Your task to perform on an android device: Open the calendar and show me this week's events Image 0: 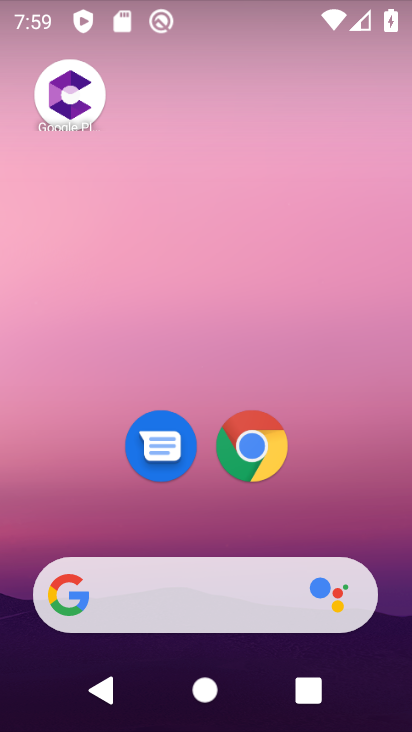
Step 0: drag from (393, 487) to (185, 48)
Your task to perform on an android device: Open the calendar and show me this week's events Image 1: 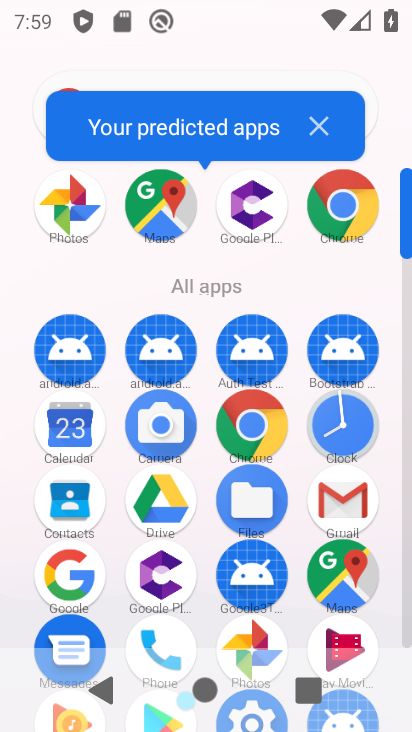
Step 1: click (73, 436)
Your task to perform on an android device: Open the calendar and show me this week's events Image 2: 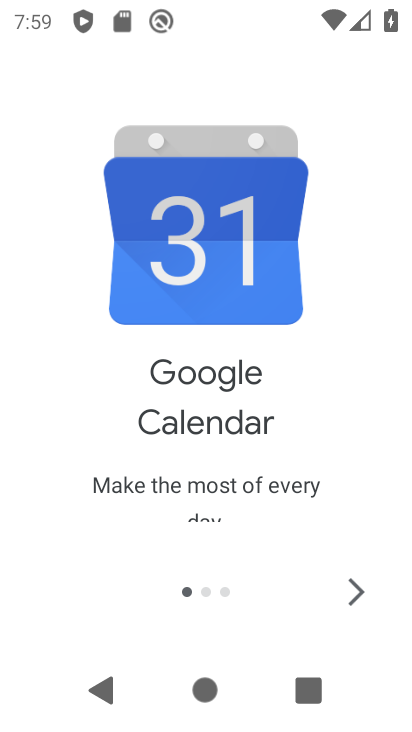
Step 2: click (356, 593)
Your task to perform on an android device: Open the calendar and show me this week's events Image 3: 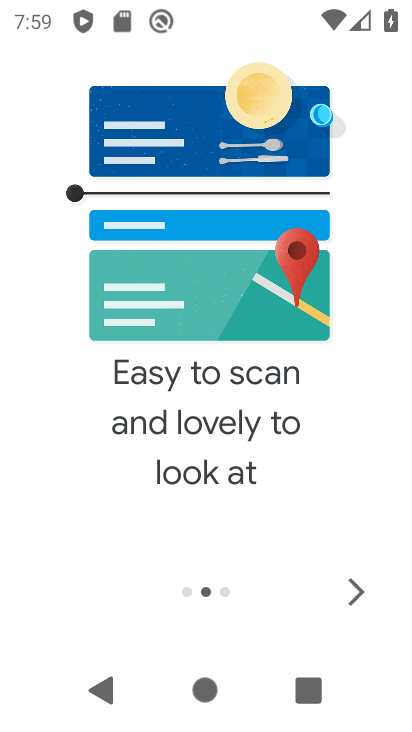
Step 3: click (356, 593)
Your task to perform on an android device: Open the calendar and show me this week's events Image 4: 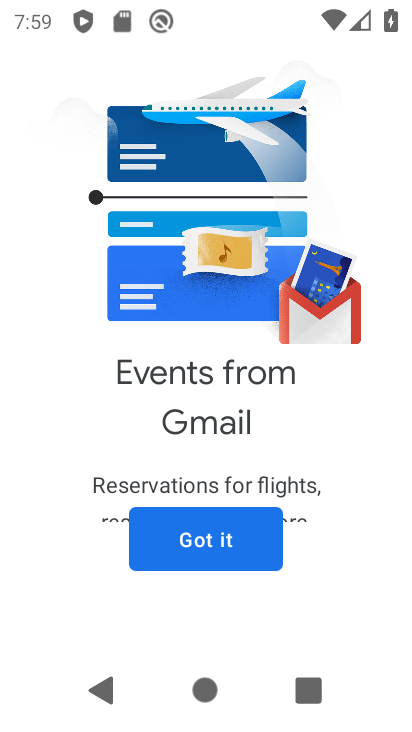
Step 4: click (246, 560)
Your task to perform on an android device: Open the calendar and show me this week's events Image 5: 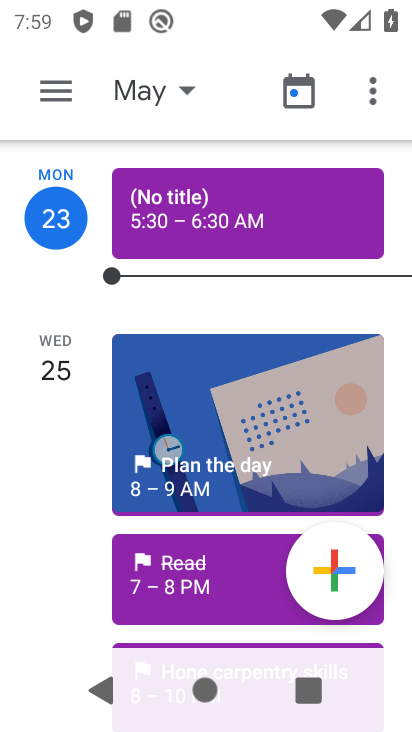
Step 5: click (178, 82)
Your task to perform on an android device: Open the calendar and show me this week's events Image 6: 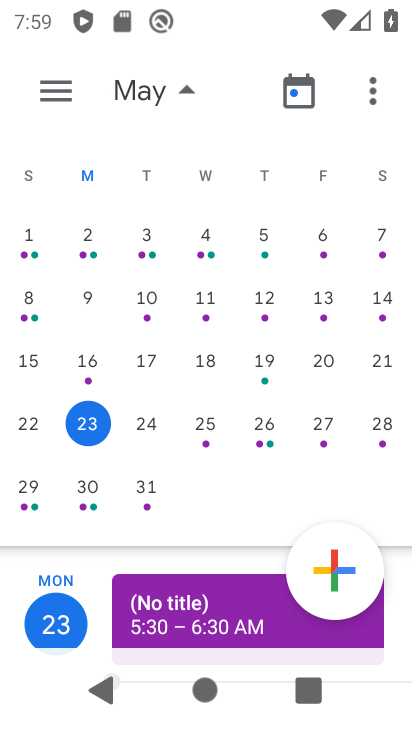
Step 6: click (46, 101)
Your task to perform on an android device: Open the calendar and show me this week's events Image 7: 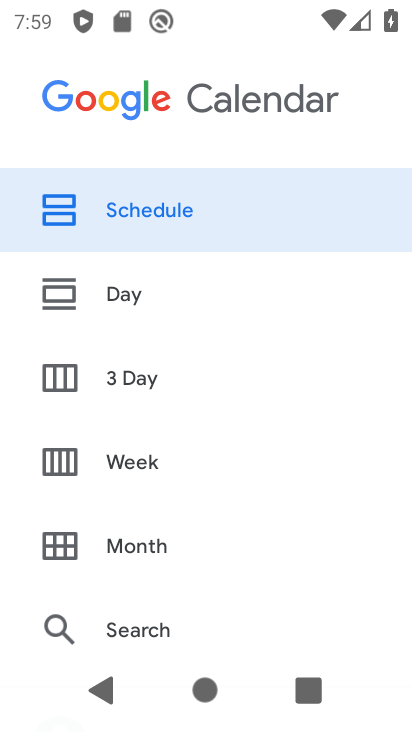
Step 7: click (171, 460)
Your task to perform on an android device: Open the calendar and show me this week's events Image 8: 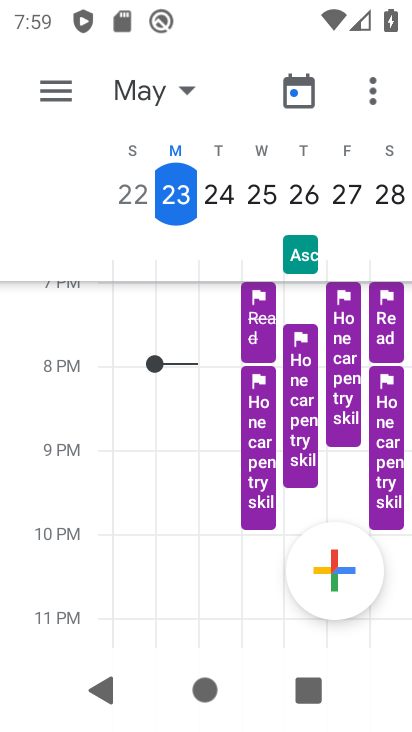
Step 8: task complete